Your task to perform on an android device: turn off data saver in the chrome app Image 0: 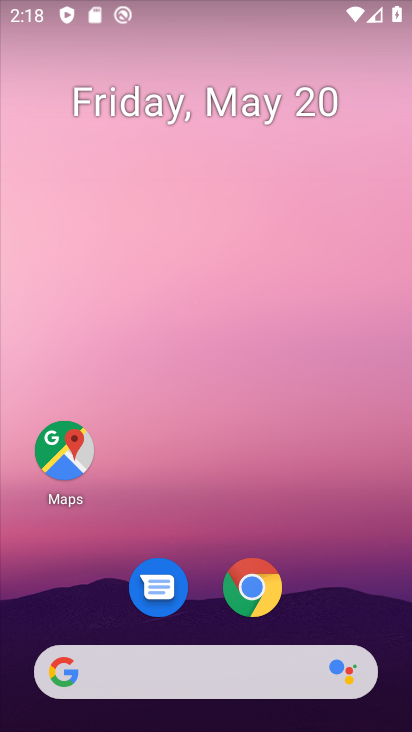
Step 0: drag from (377, 614) to (379, 219)
Your task to perform on an android device: turn off data saver in the chrome app Image 1: 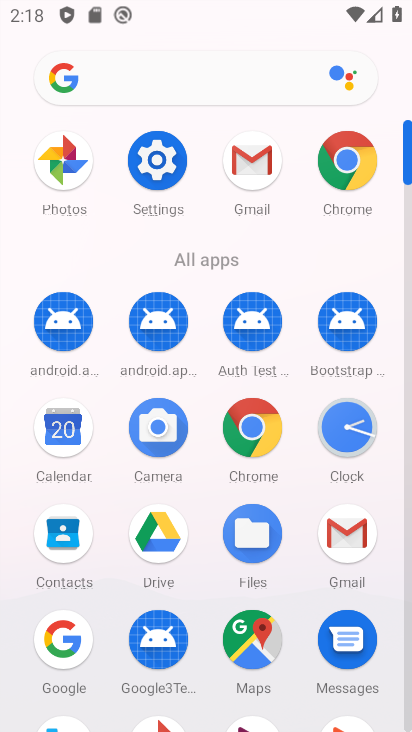
Step 1: click (250, 442)
Your task to perform on an android device: turn off data saver in the chrome app Image 2: 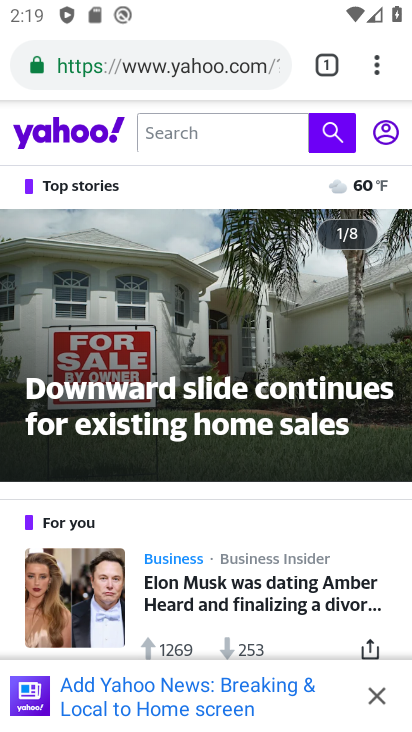
Step 2: click (374, 72)
Your task to perform on an android device: turn off data saver in the chrome app Image 3: 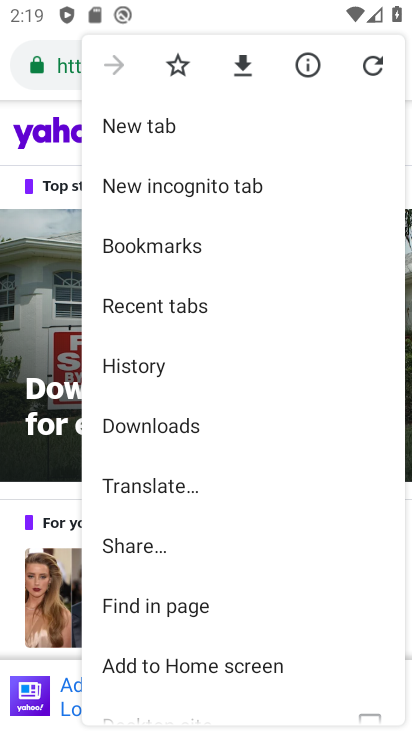
Step 3: drag from (347, 497) to (347, 405)
Your task to perform on an android device: turn off data saver in the chrome app Image 4: 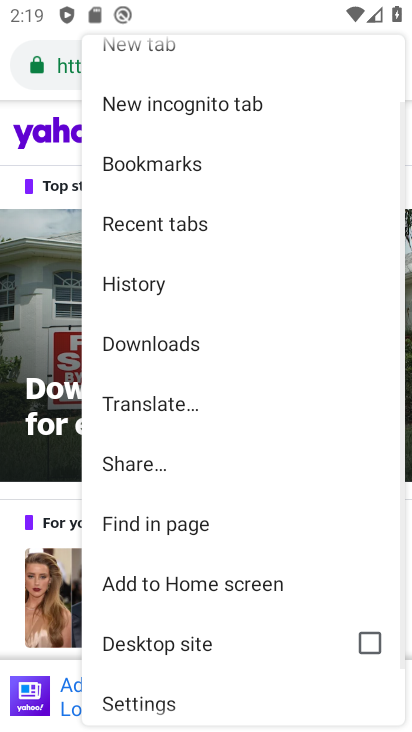
Step 4: drag from (333, 571) to (340, 435)
Your task to perform on an android device: turn off data saver in the chrome app Image 5: 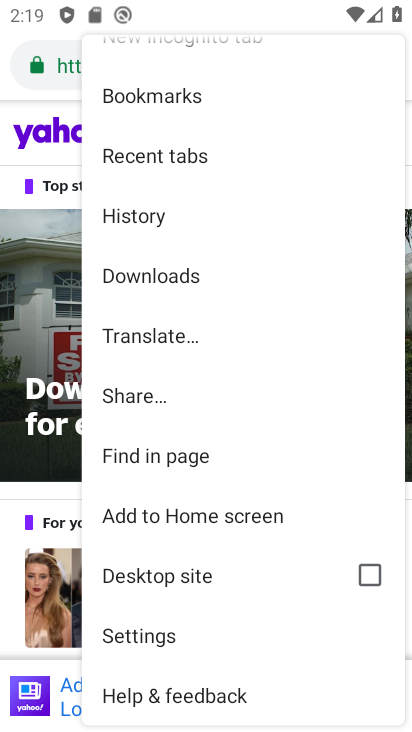
Step 5: drag from (293, 600) to (300, 500)
Your task to perform on an android device: turn off data saver in the chrome app Image 6: 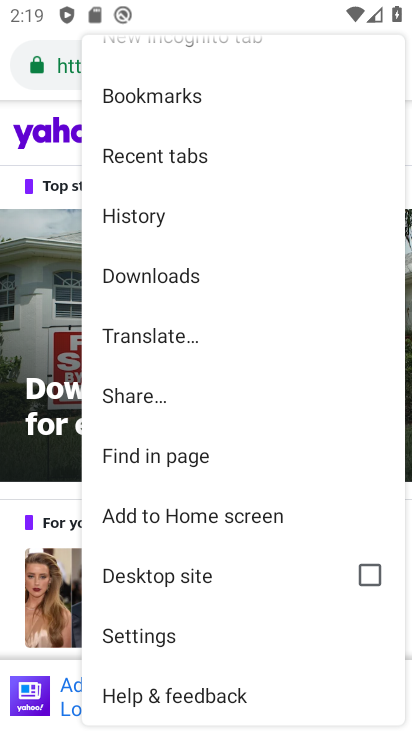
Step 6: click (192, 645)
Your task to perform on an android device: turn off data saver in the chrome app Image 7: 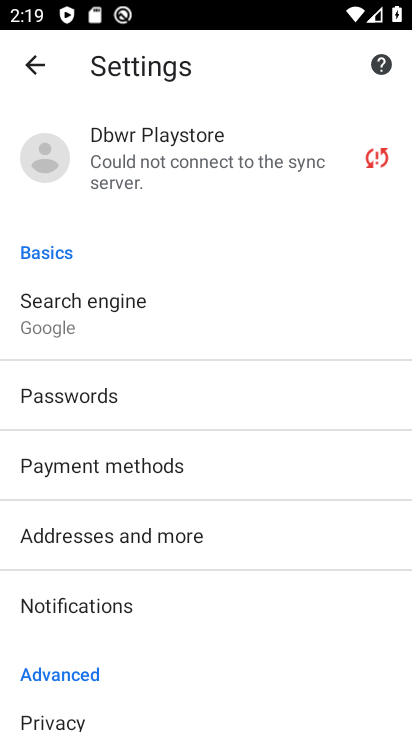
Step 7: drag from (297, 643) to (289, 475)
Your task to perform on an android device: turn off data saver in the chrome app Image 8: 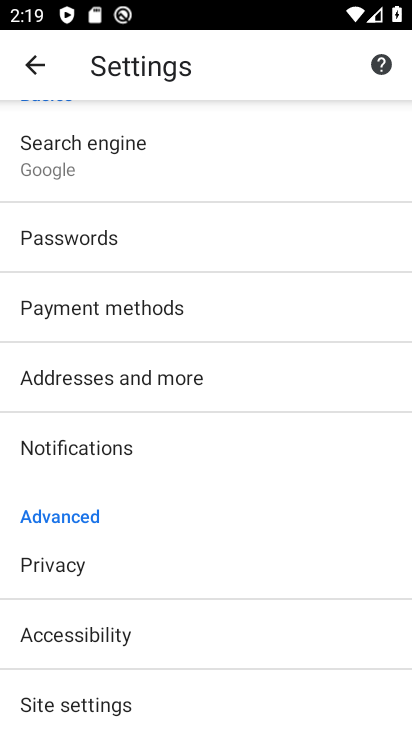
Step 8: drag from (296, 636) to (301, 536)
Your task to perform on an android device: turn off data saver in the chrome app Image 9: 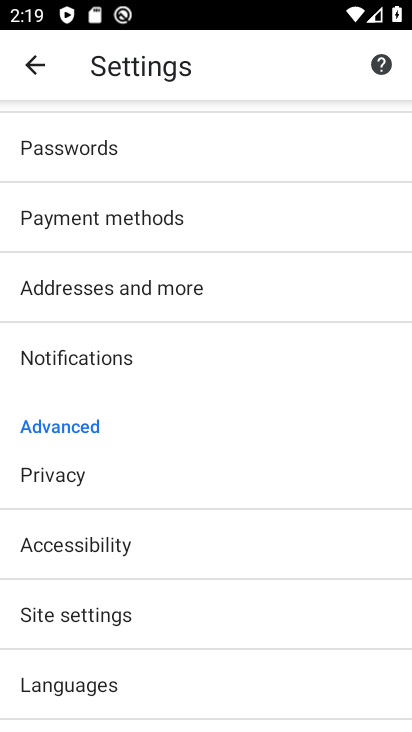
Step 9: drag from (309, 661) to (318, 570)
Your task to perform on an android device: turn off data saver in the chrome app Image 10: 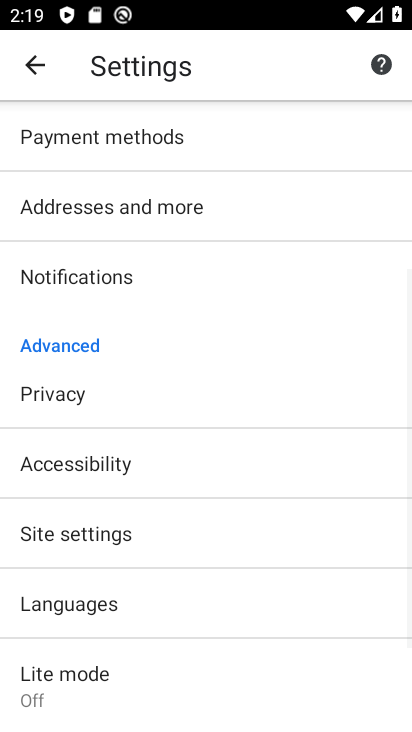
Step 10: drag from (311, 642) to (320, 575)
Your task to perform on an android device: turn off data saver in the chrome app Image 11: 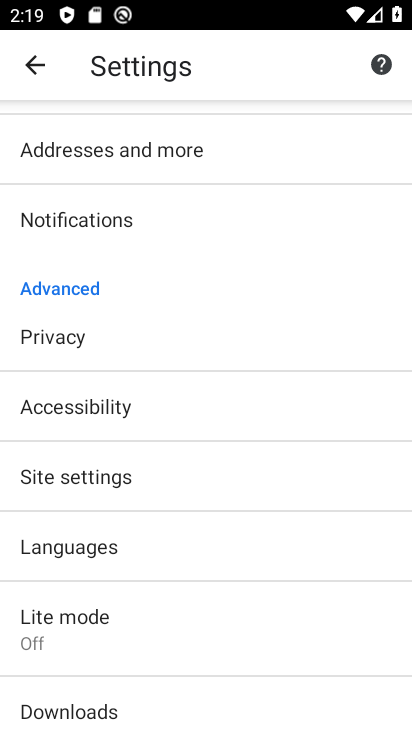
Step 11: drag from (314, 647) to (321, 578)
Your task to perform on an android device: turn off data saver in the chrome app Image 12: 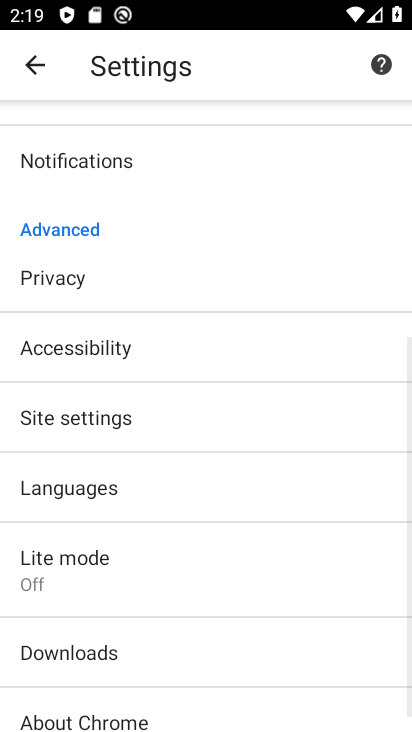
Step 12: drag from (322, 651) to (322, 564)
Your task to perform on an android device: turn off data saver in the chrome app Image 13: 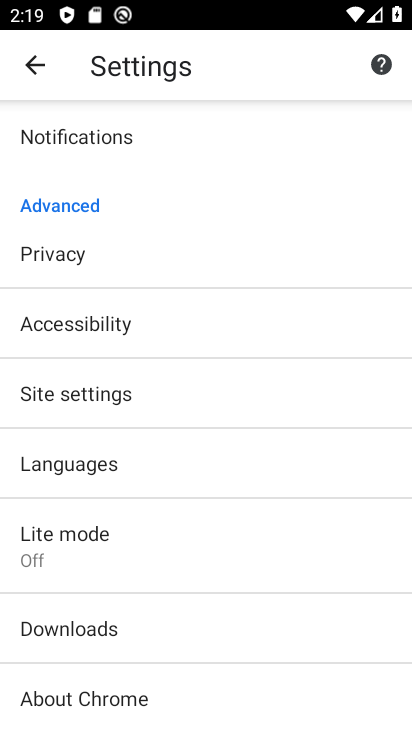
Step 13: drag from (308, 667) to (316, 584)
Your task to perform on an android device: turn off data saver in the chrome app Image 14: 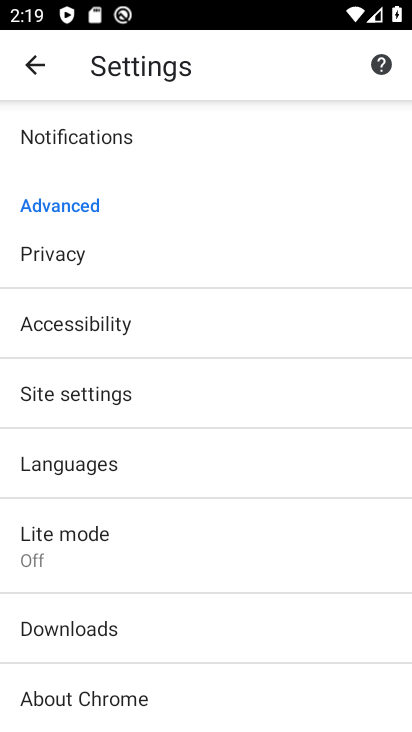
Step 14: click (237, 561)
Your task to perform on an android device: turn off data saver in the chrome app Image 15: 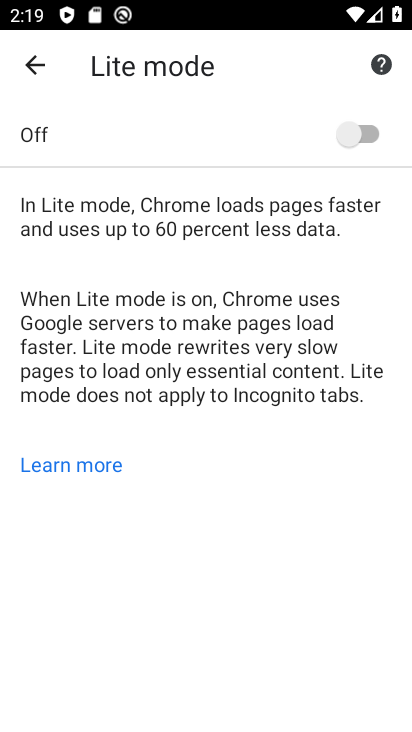
Step 15: task complete